Your task to perform on an android device: open app "Facebook Lite" (install if not already installed) Image 0: 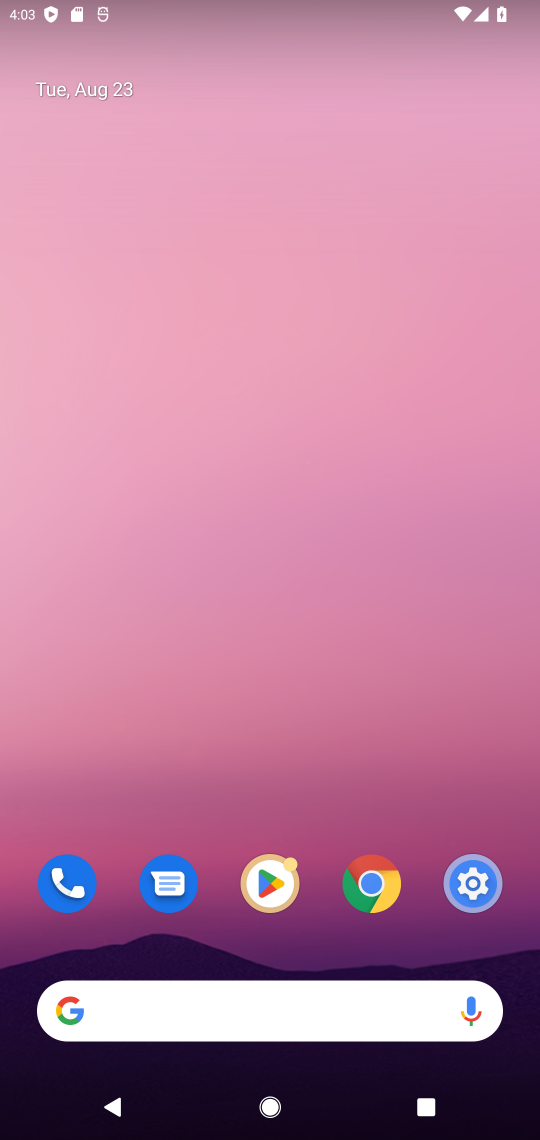
Step 0: drag from (296, 1001) to (275, 10)
Your task to perform on an android device: open app "Facebook Lite" (install if not already installed) Image 1: 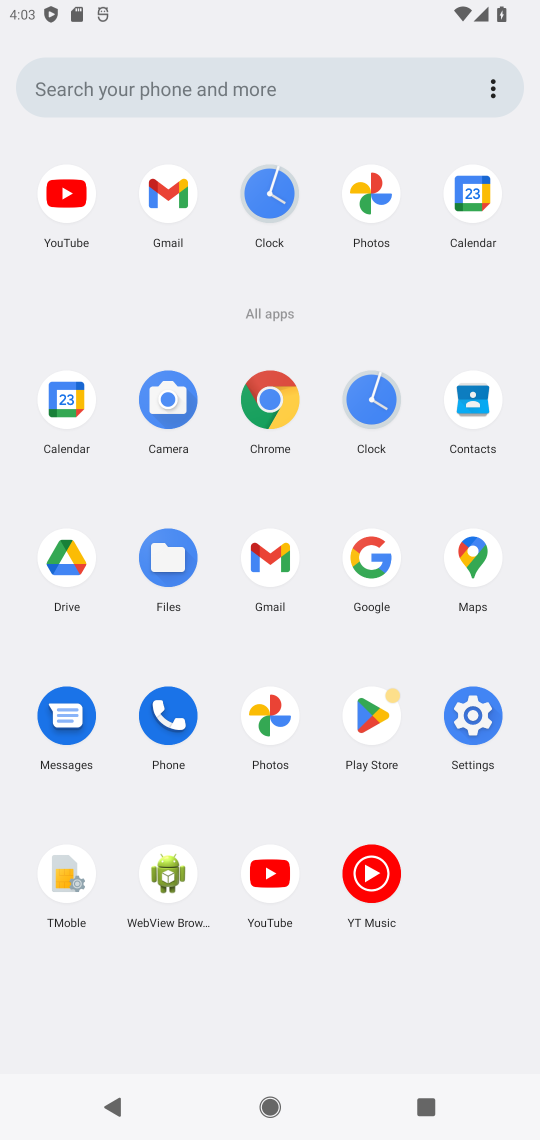
Step 1: click (382, 715)
Your task to perform on an android device: open app "Facebook Lite" (install if not already installed) Image 2: 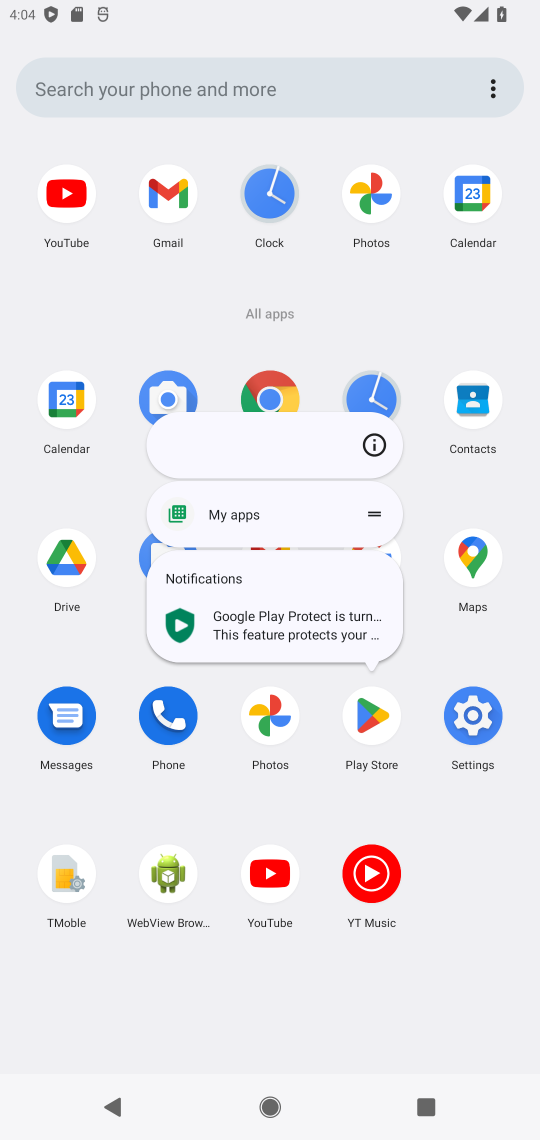
Step 2: click (363, 714)
Your task to perform on an android device: open app "Facebook Lite" (install if not already installed) Image 3: 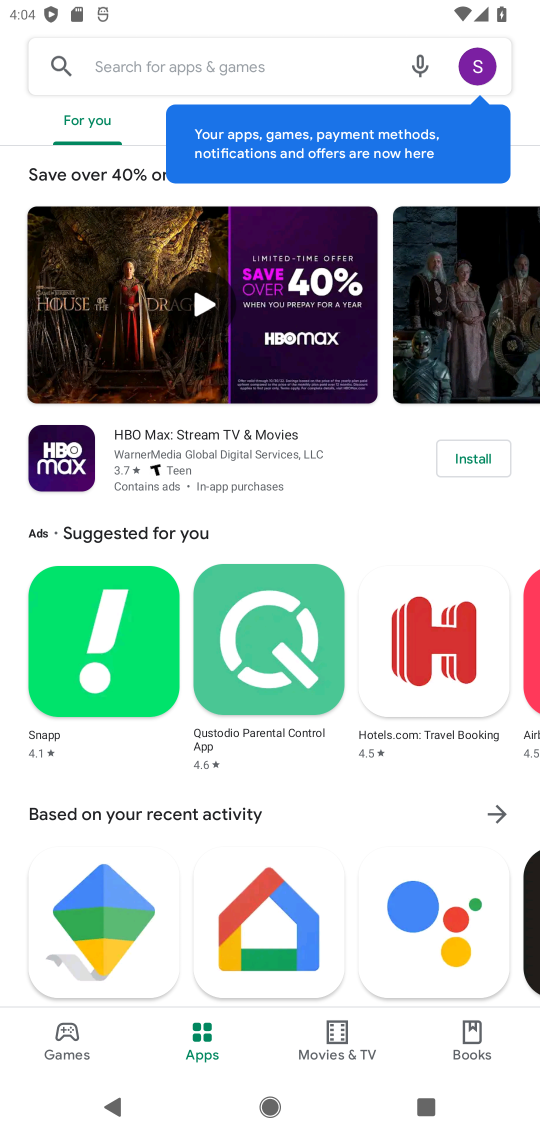
Step 3: click (92, 72)
Your task to perform on an android device: open app "Facebook Lite" (install if not already installed) Image 4: 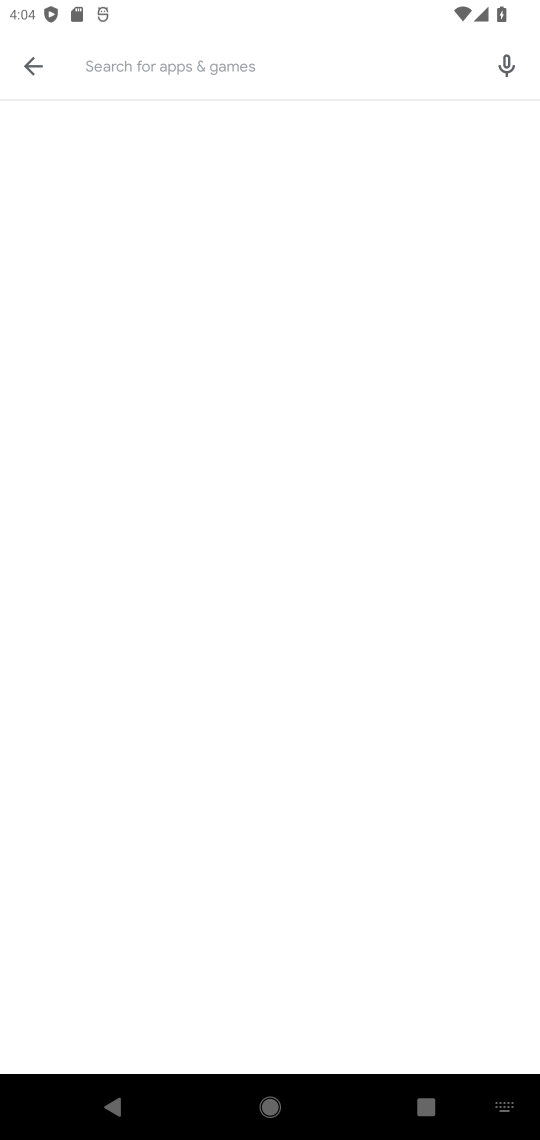
Step 4: type "Facebook Lite"
Your task to perform on an android device: open app "Facebook Lite" (install if not already installed) Image 5: 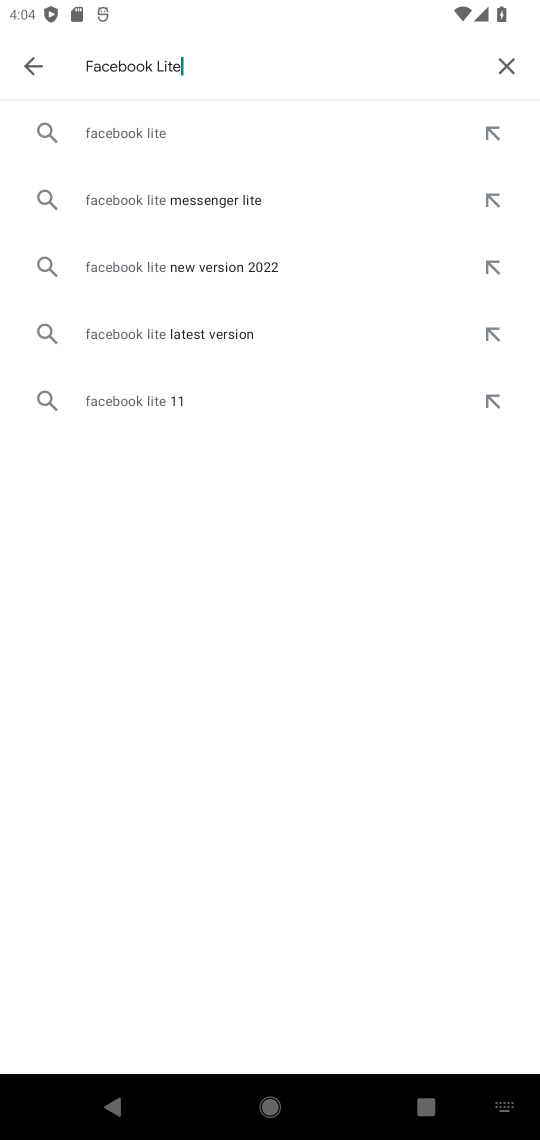
Step 5: click (124, 136)
Your task to perform on an android device: open app "Facebook Lite" (install if not already installed) Image 6: 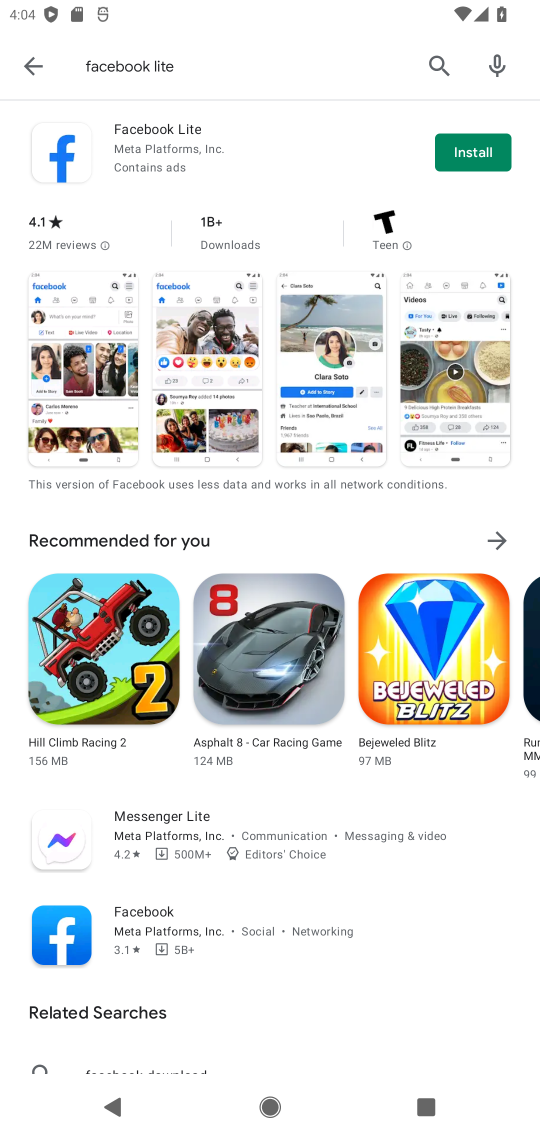
Step 6: click (491, 157)
Your task to perform on an android device: open app "Facebook Lite" (install if not already installed) Image 7: 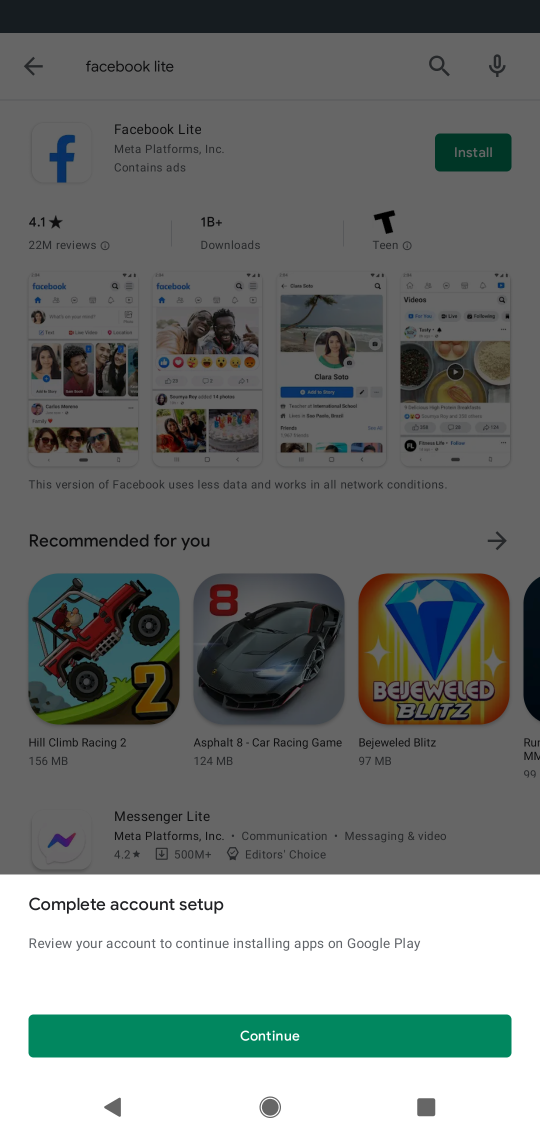
Step 7: click (275, 1038)
Your task to perform on an android device: open app "Facebook Lite" (install if not already installed) Image 8: 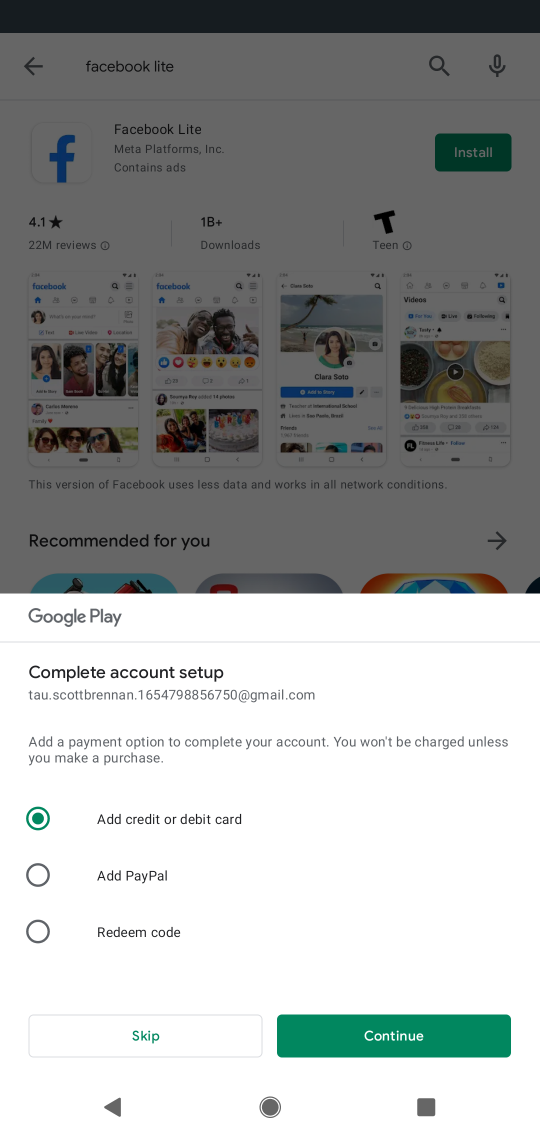
Step 8: click (133, 1033)
Your task to perform on an android device: open app "Facebook Lite" (install if not already installed) Image 9: 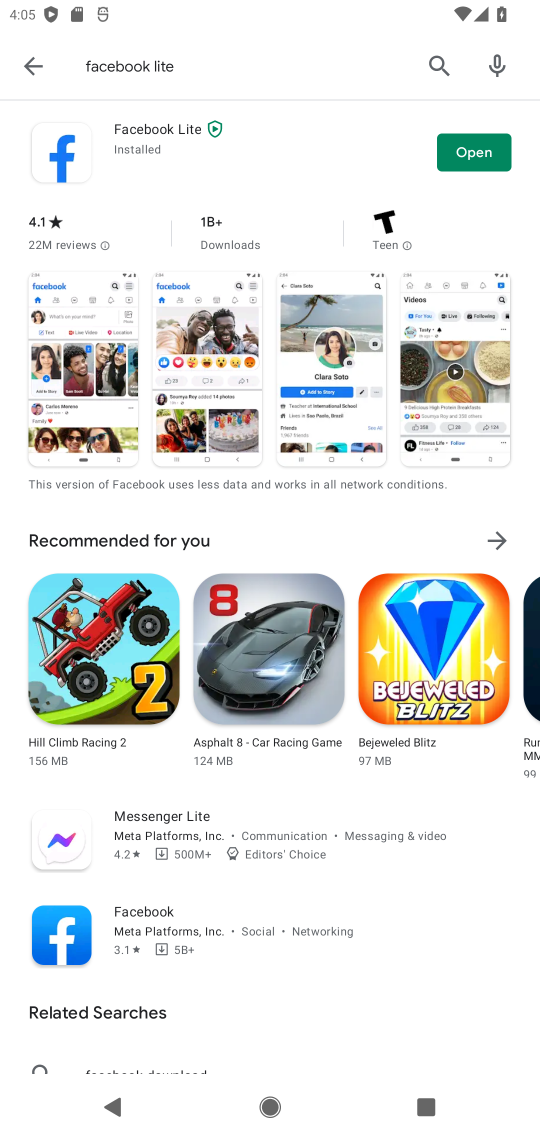
Step 9: click (479, 140)
Your task to perform on an android device: open app "Facebook Lite" (install if not already installed) Image 10: 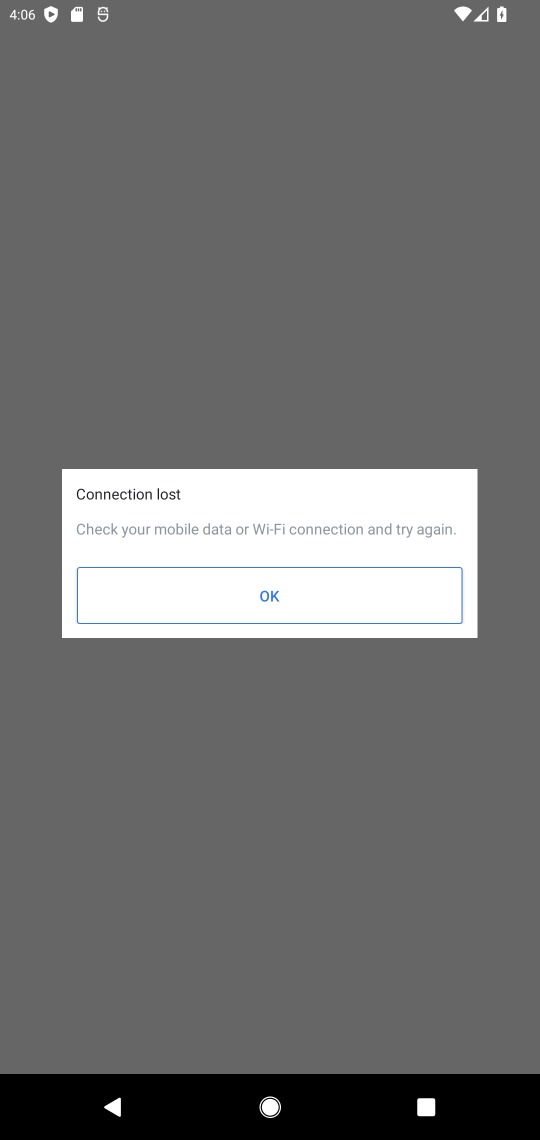
Step 10: task complete